Your task to perform on an android device: Open internet settings Image 0: 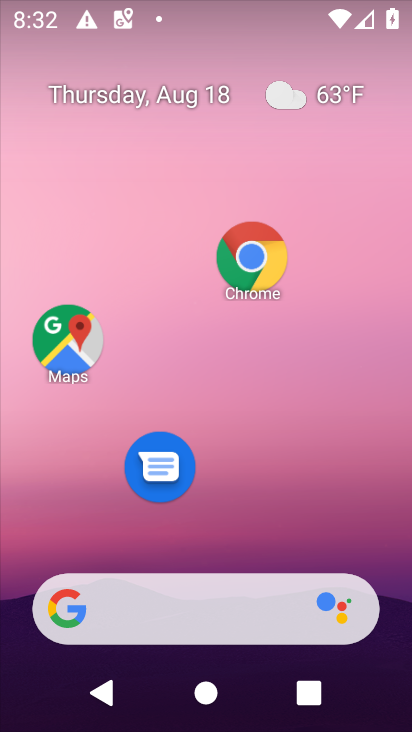
Step 0: task complete